Your task to perform on an android device: Go to settings Image 0: 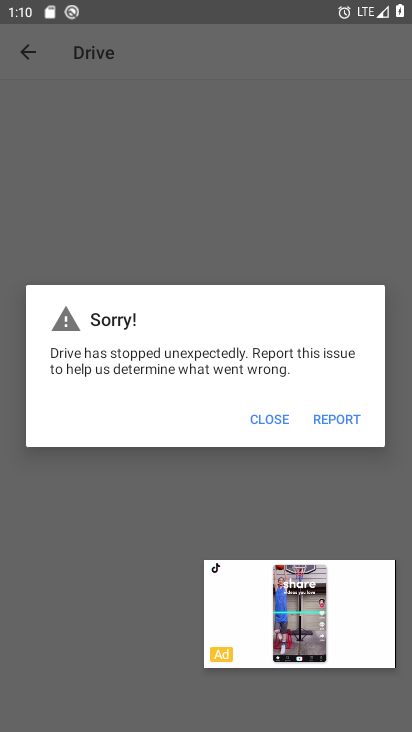
Step 0: press home button
Your task to perform on an android device: Go to settings Image 1: 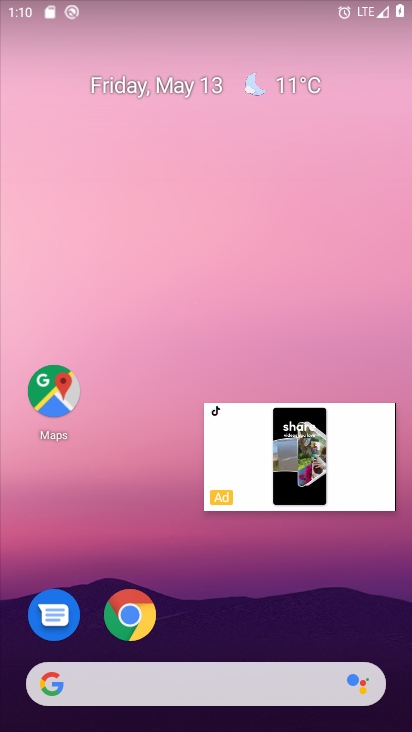
Step 1: drag from (145, 517) to (150, 104)
Your task to perform on an android device: Go to settings Image 2: 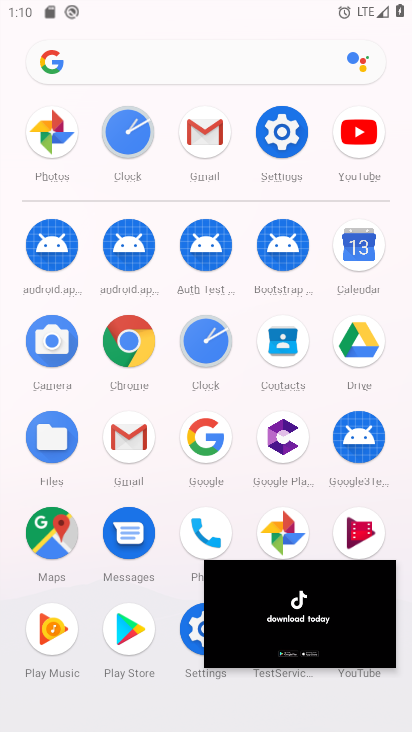
Step 2: drag from (172, 479) to (178, 194)
Your task to perform on an android device: Go to settings Image 3: 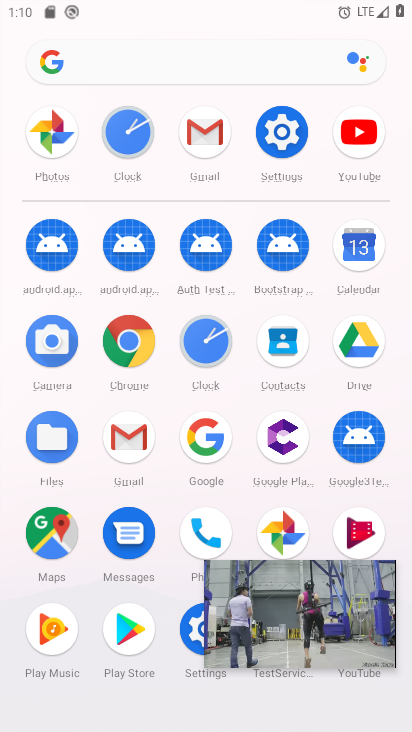
Step 3: click (283, 125)
Your task to perform on an android device: Go to settings Image 4: 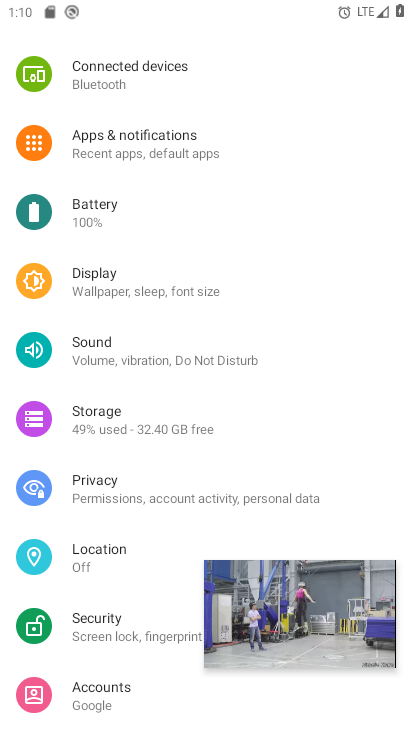
Step 4: task complete